Your task to perform on an android device: Open accessibility settings Image 0: 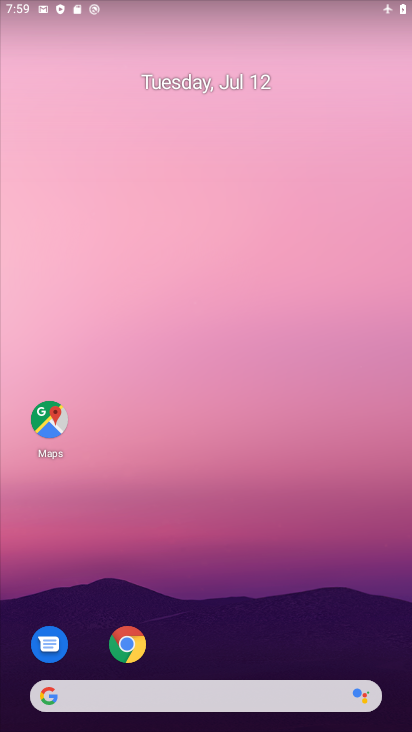
Step 0: drag from (215, 646) to (175, 183)
Your task to perform on an android device: Open accessibility settings Image 1: 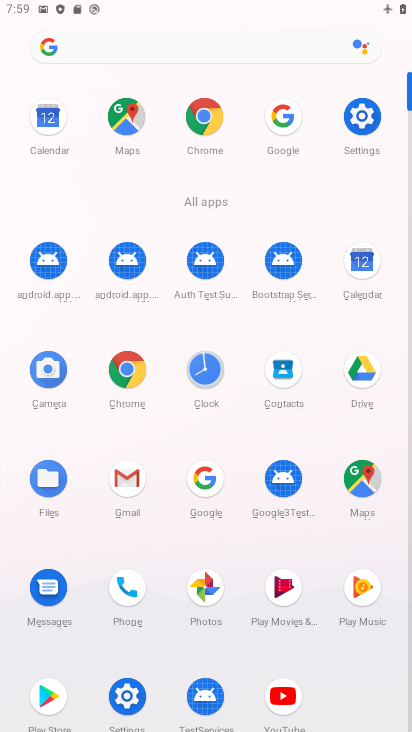
Step 1: click (380, 123)
Your task to perform on an android device: Open accessibility settings Image 2: 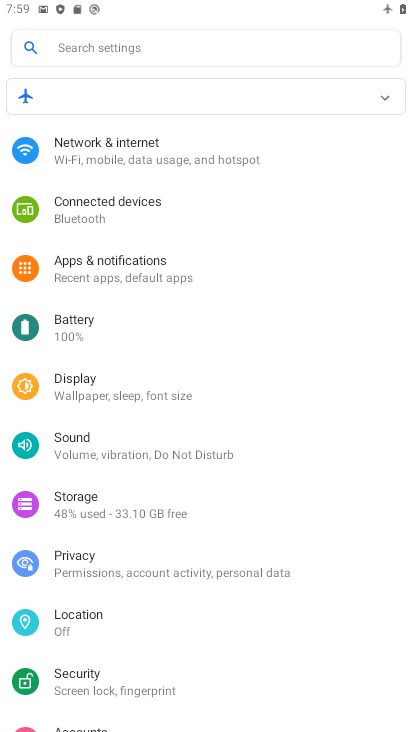
Step 2: drag from (183, 644) to (165, 233)
Your task to perform on an android device: Open accessibility settings Image 3: 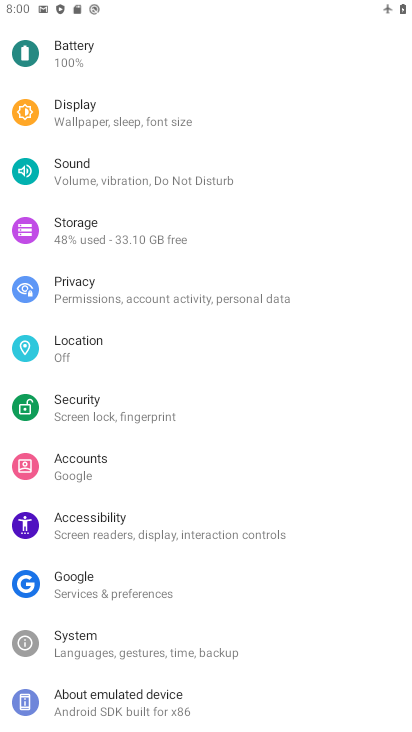
Step 3: click (147, 534)
Your task to perform on an android device: Open accessibility settings Image 4: 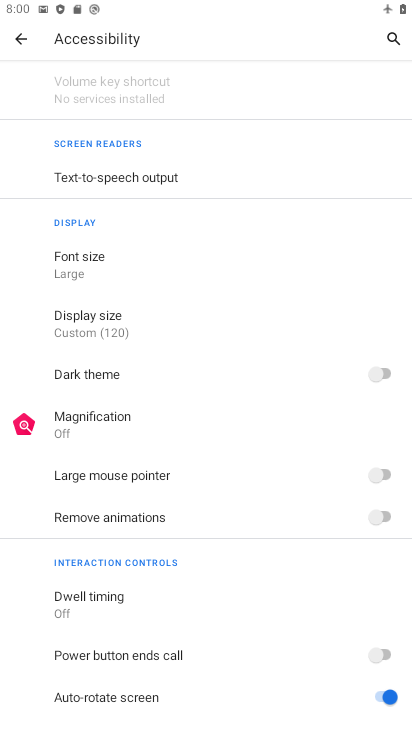
Step 4: task complete